Your task to perform on an android device: Open the calendar app, open the side menu, and click the "Day" option Image 0: 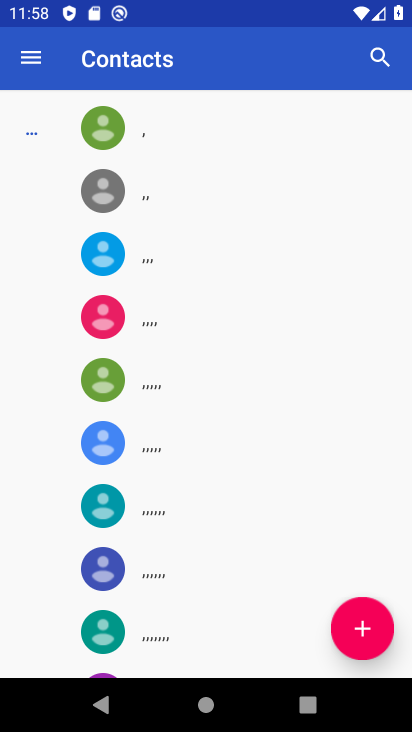
Step 0: press home button
Your task to perform on an android device: Open the calendar app, open the side menu, and click the "Day" option Image 1: 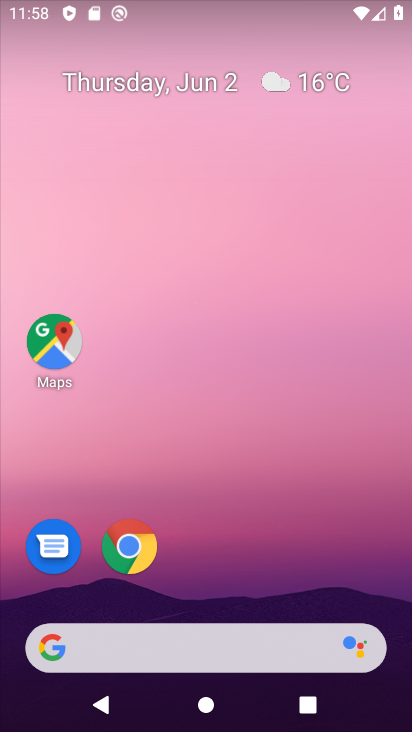
Step 1: drag from (142, 709) to (158, 45)
Your task to perform on an android device: Open the calendar app, open the side menu, and click the "Day" option Image 2: 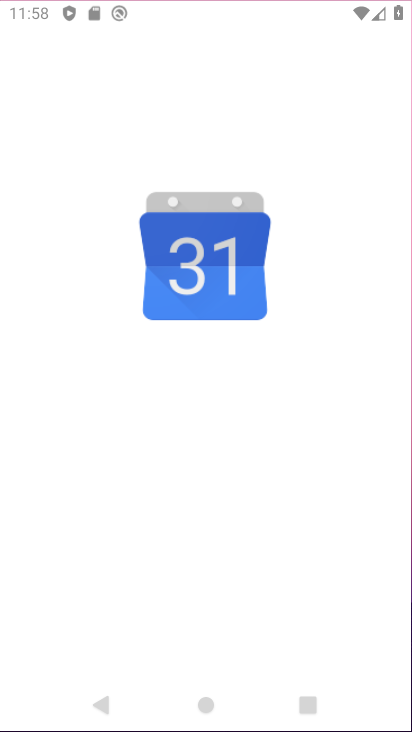
Step 2: drag from (147, 724) to (160, 22)
Your task to perform on an android device: Open the calendar app, open the side menu, and click the "Day" option Image 3: 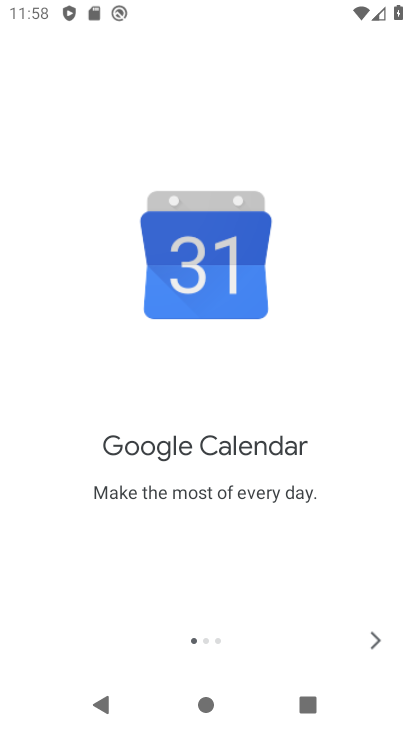
Step 3: click (376, 643)
Your task to perform on an android device: Open the calendar app, open the side menu, and click the "Day" option Image 4: 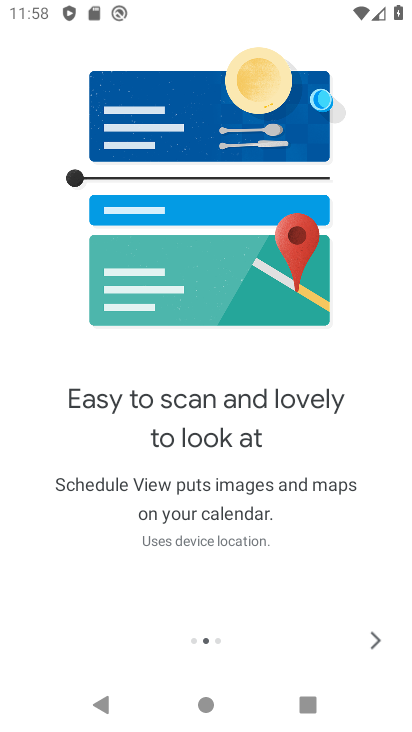
Step 4: click (369, 637)
Your task to perform on an android device: Open the calendar app, open the side menu, and click the "Day" option Image 5: 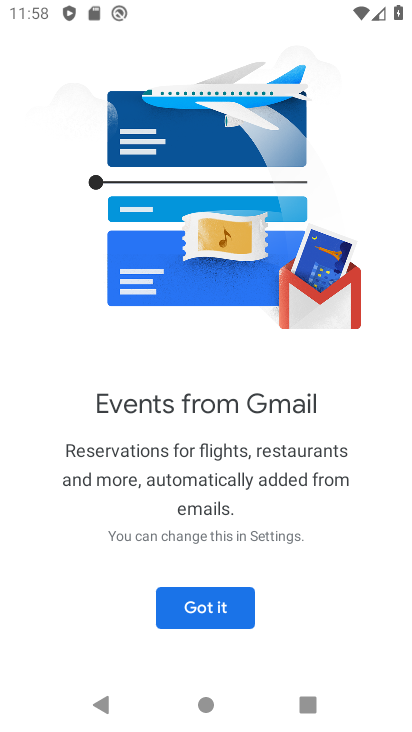
Step 5: click (187, 622)
Your task to perform on an android device: Open the calendar app, open the side menu, and click the "Day" option Image 6: 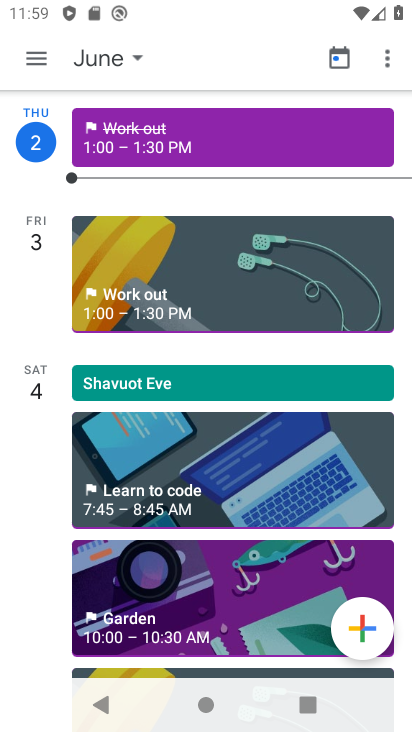
Step 6: click (42, 55)
Your task to perform on an android device: Open the calendar app, open the side menu, and click the "Day" option Image 7: 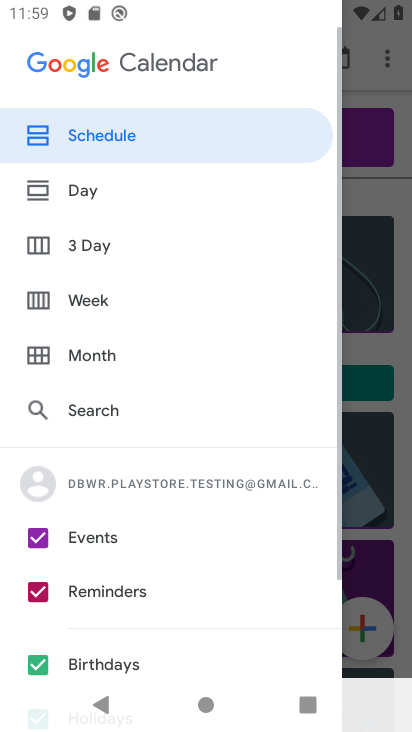
Step 7: click (82, 200)
Your task to perform on an android device: Open the calendar app, open the side menu, and click the "Day" option Image 8: 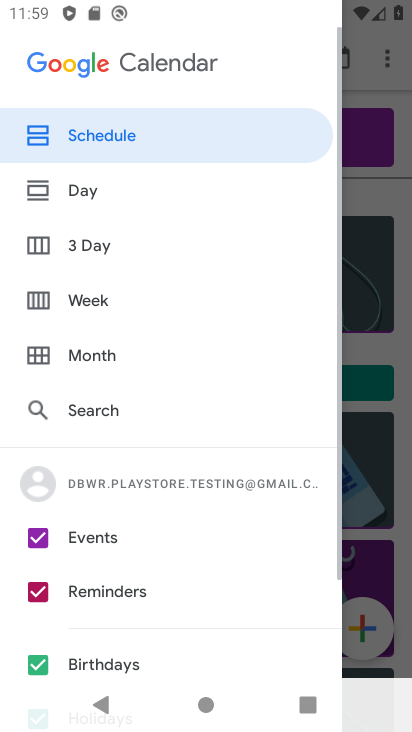
Step 8: click (74, 190)
Your task to perform on an android device: Open the calendar app, open the side menu, and click the "Day" option Image 9: 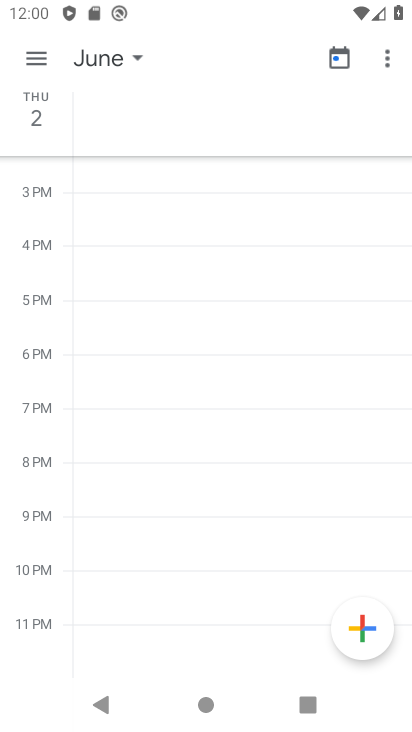
Step 9: task complete